Your task to perform on an android device: delete browsing data in the chrome app Image 0: 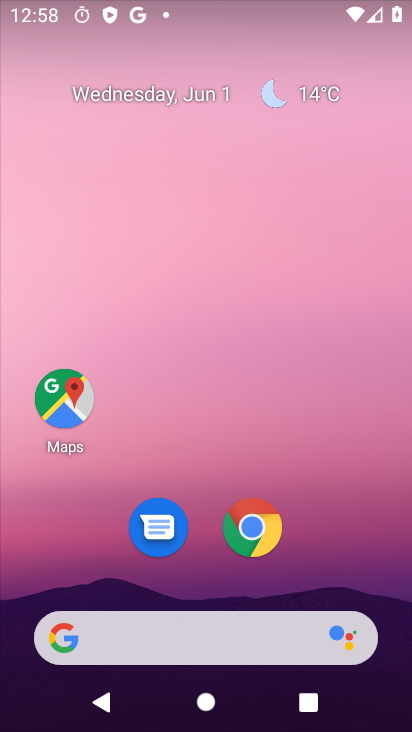
Step 0: drag from (208, 579) to (294, 98)
Your task to perform on an android device: delete browsing data in the chrome app Image 1: 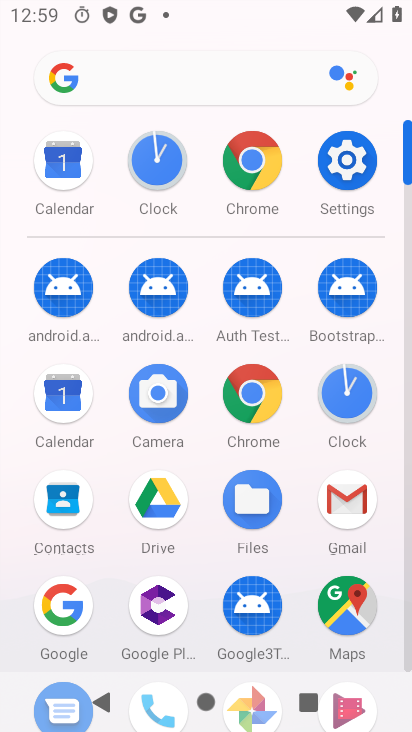
Step 1: click (264, 395)
Your task to perform on an android device: delete browsing data in the chrome app Image 2: 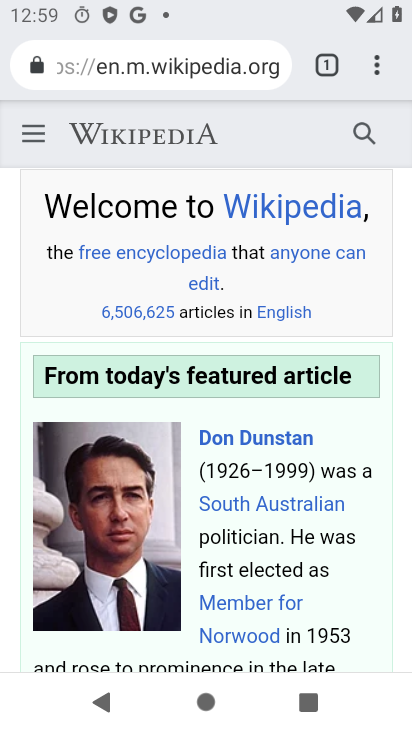
Step 2: click (382, 70)
Your task to perform on an android device: delete browsing data in the chrome app Image 3: 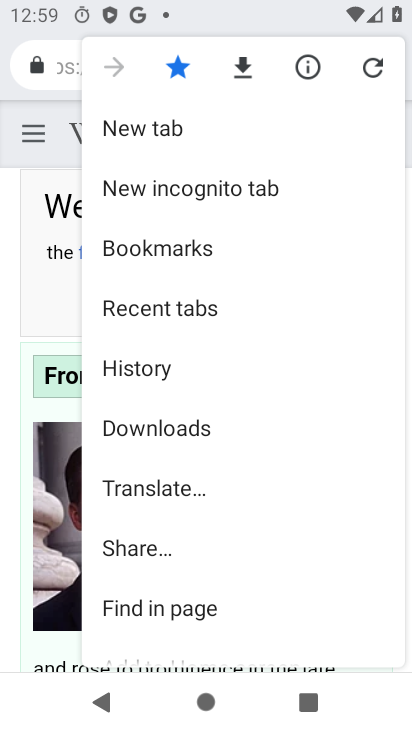
Step 3: click (159, 368)
Your task to perform on an android device: delete browsing data in the chrome app Image 4: 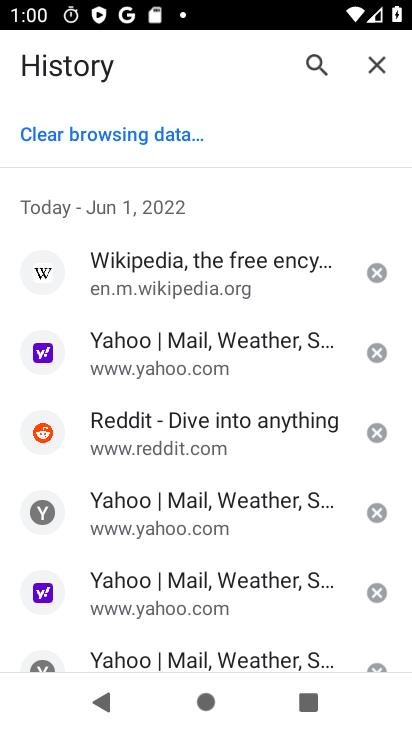
Step 4: click (116, 144)
Your task to perform on an android device: delete browsing data in the chrome app Image 5: 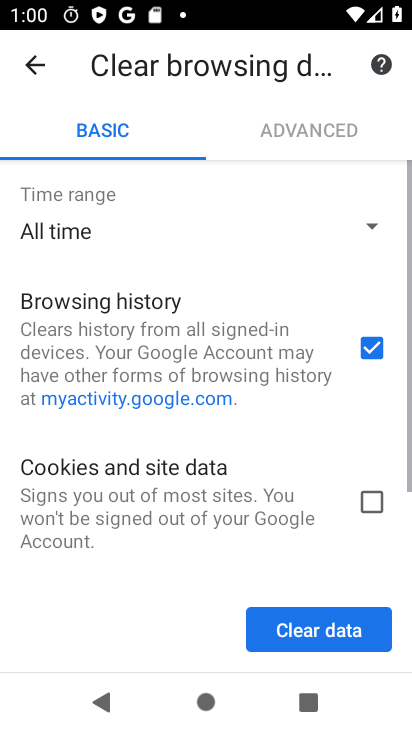
Step 5: click (324, 627)
Your task to perform on an android device: delete browsing data in the chrome app Image 6: 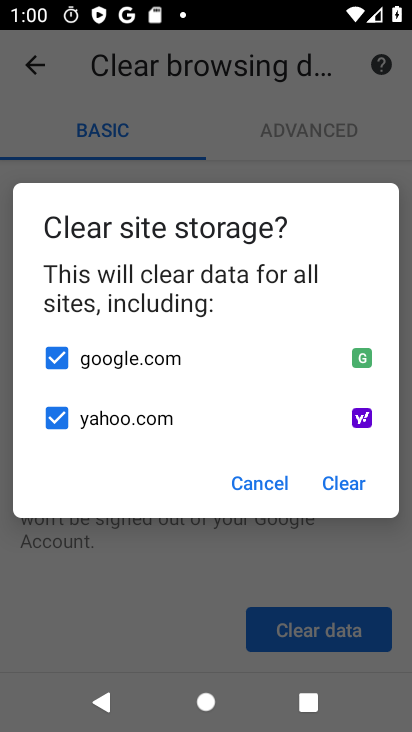
Step 6: click (342, 483)
Your task to perform on an android device: delete browsing data in the chrome app Image 7: 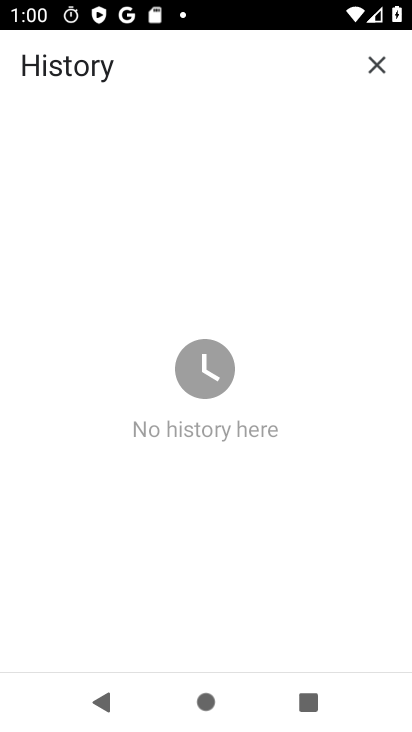
Step 7: task complete